Your task to perform on an android device: Open settings Image 0: 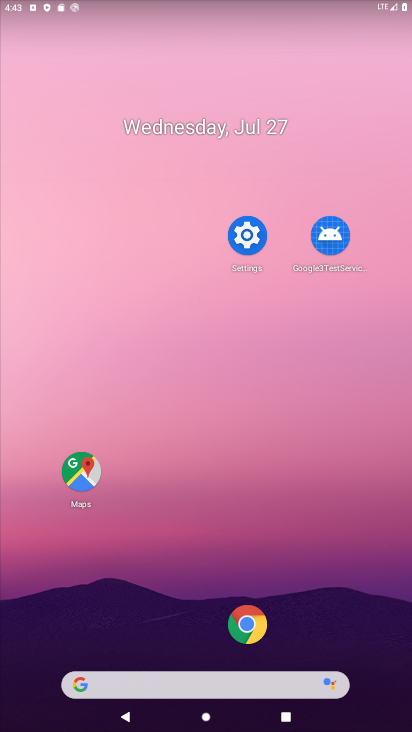
Step 0: click (254, 242)
Your task to perform on an android device: Open settings Image 1: 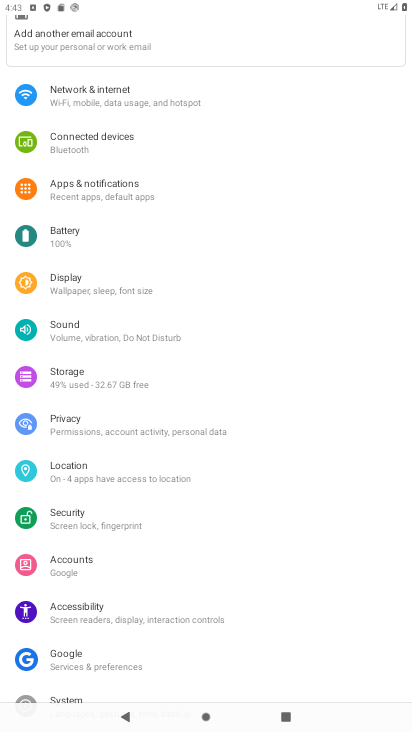
Step 1: task complete